Your task to perform on an android device: Go to sound settings Image 0: 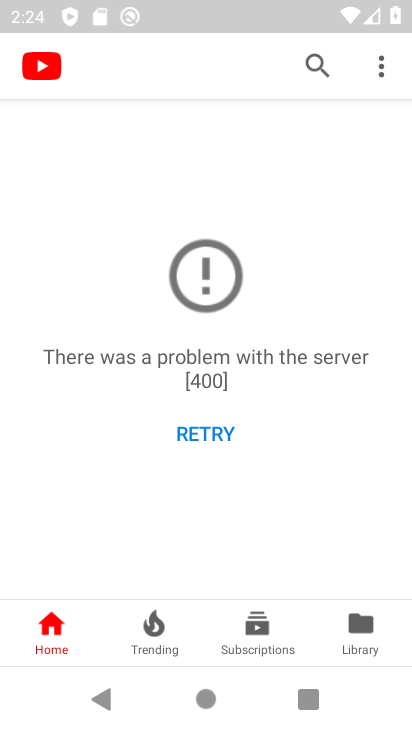
Step 0: press home button
Your task to perform on an android device: Go to sound settings Image 1: 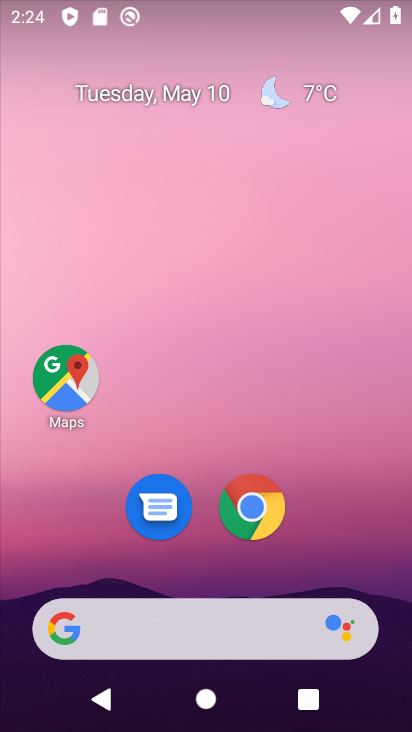
Step 1: drag from (271, 511) to (274, 208)
Your task to perform on an android device: Go to sound settings Image 2: 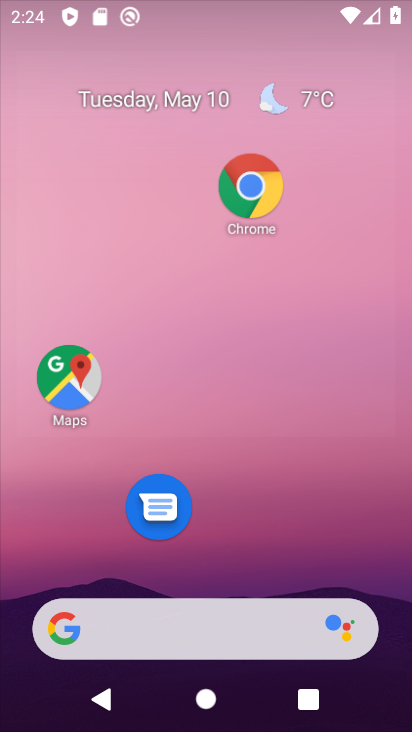
Step 2: drag from (290, 508) to (258, 89)
Your task to perform on an android device: Go to sound settings Image 3: 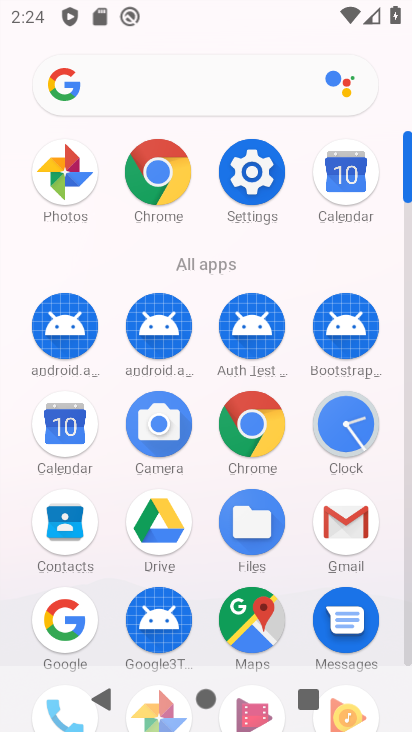
Step 3: click (234, 154)
Your task to perform on an android device: Go to sound settings Image 4: 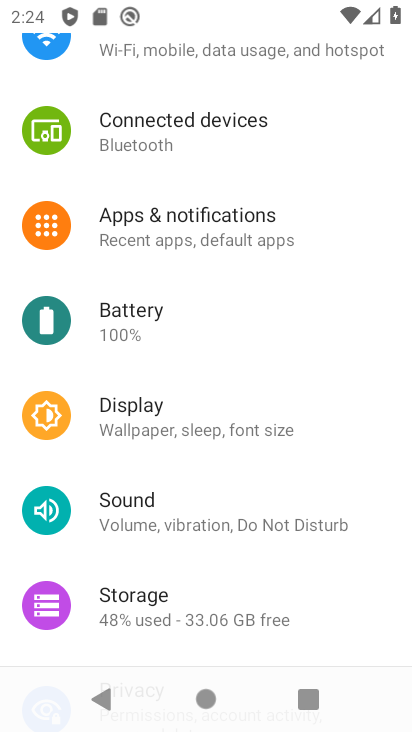
Step 4: click (254, 196)
Your task to perform on an android device: Go to sound settings Image 5: 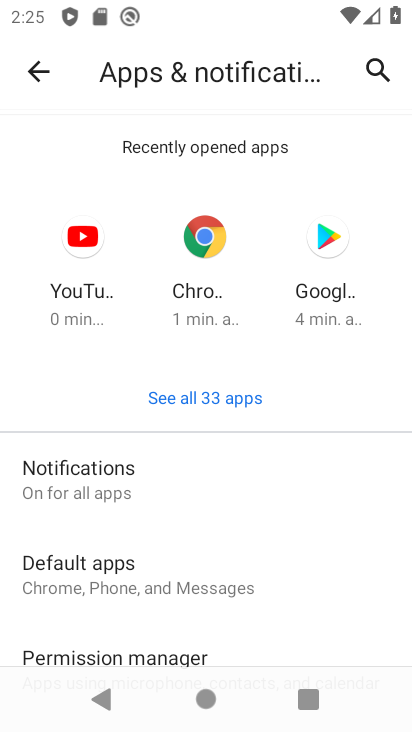
Step 5: task complete